Your task to perform on an android device: turn on bluetooth scan Image 0: 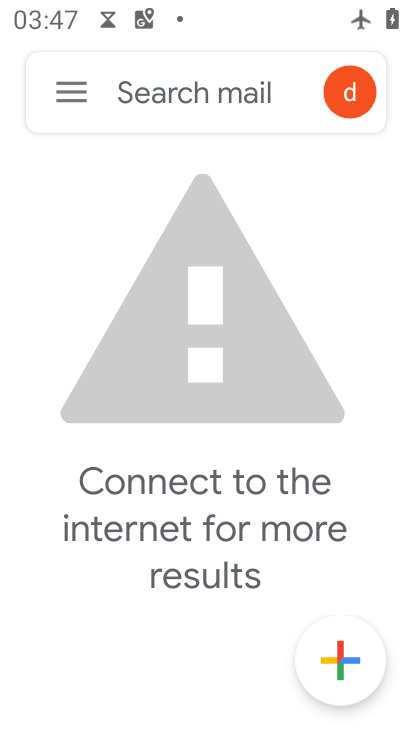
Step 0: press home button
Your task to perform on an android device: turn on bluetooth scan Image 1: 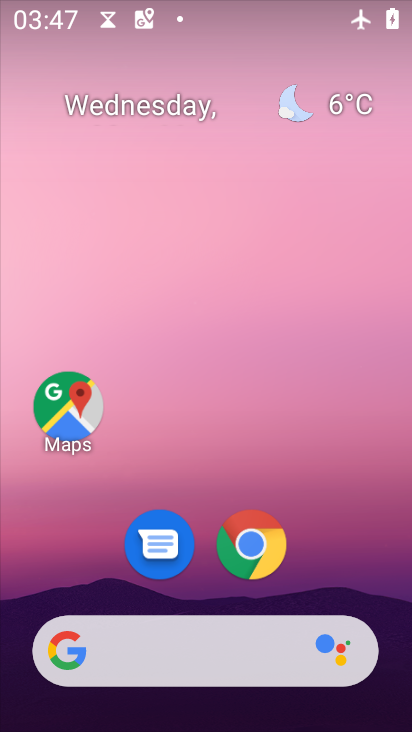
Step 1: drag from (322, 533) to (307, 75)
Your task to perform on an android device: turn on bluetooth scan Image 2: 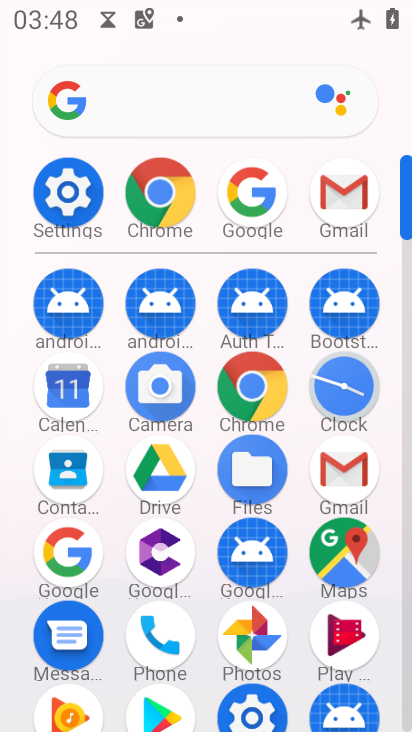
Step 2: click (252, 716)
Your task to perform on an android device: turn on bluetooth scan Image 3: 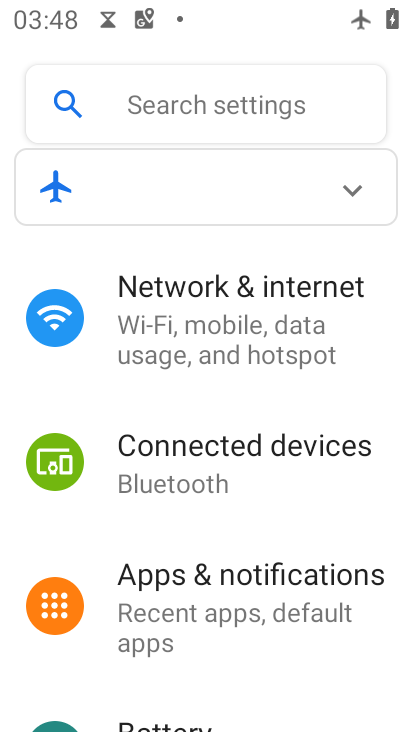
Step 3: drag from (255, 671) to (255, 332)
Your task to perform on an android device: turn on bluetooth scan Image 4: 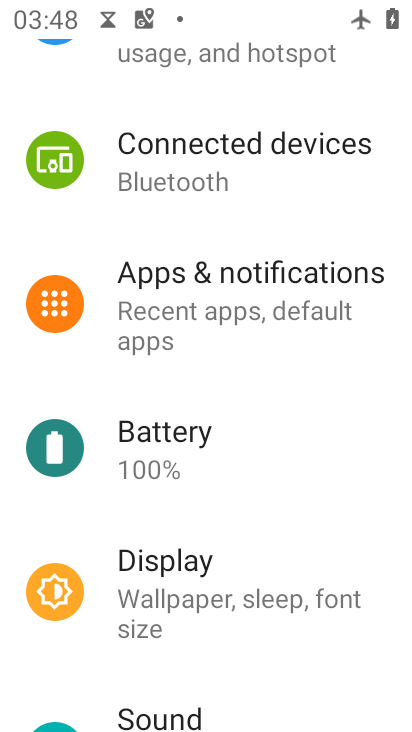
Step 4: drag from (231, 619) to (206, 333)
Your task to perform on an android device: turn on bluetooth scan Image 5: 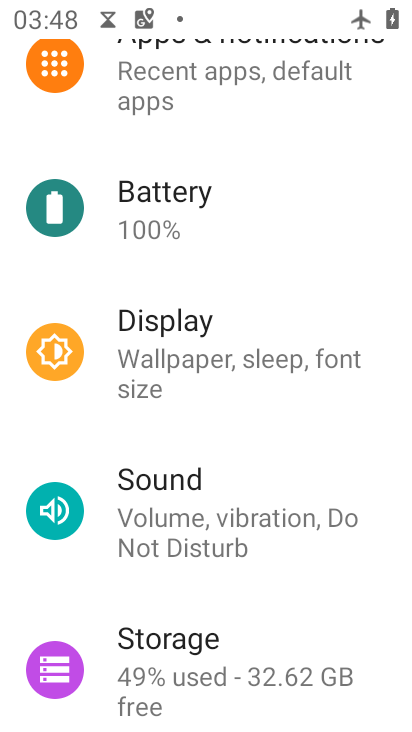
Step 5: drag from (208, 594) to (208, 400)
Your task to perform on an android device: turn on bluetooth scan Image 6: 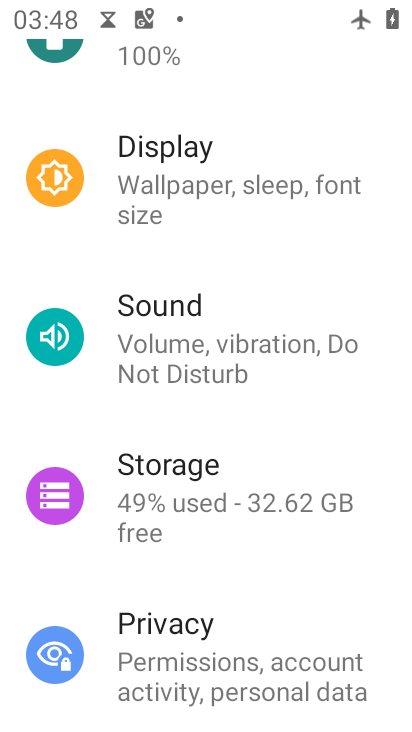
Step 6: drag from (207, 587) to (201, 333)
Your task to perform on an android device: turn on bluetooth scan Image 7: 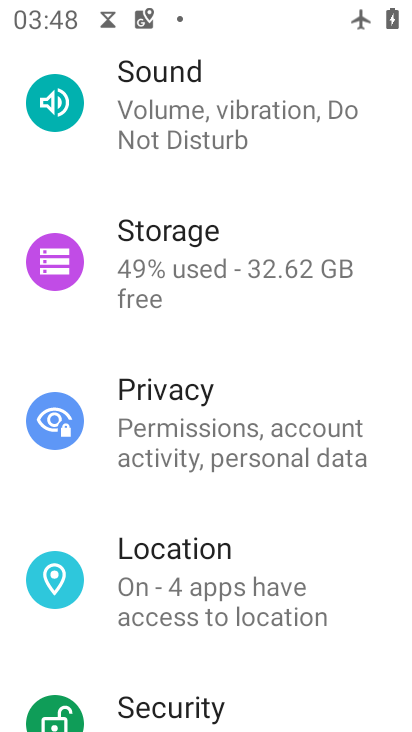
Step 7: click (196, 605)
Your task to perform on an android device: turn on bluetooth scan Image 8: 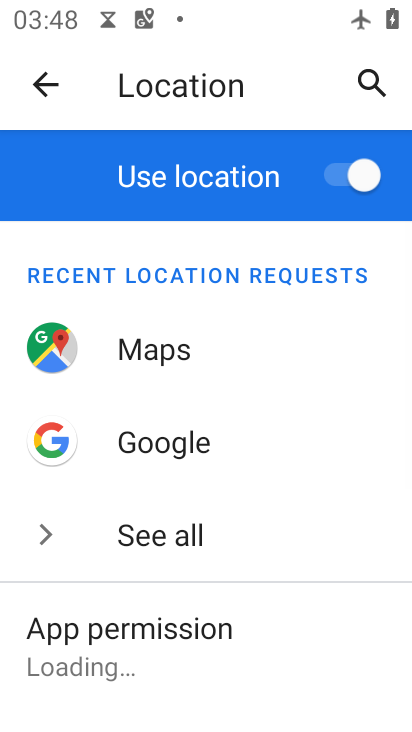
Step 8: drag from (219, 626) to (220, 338)
Your task to perform on an android device: turn on bluetooth scan Image 9: 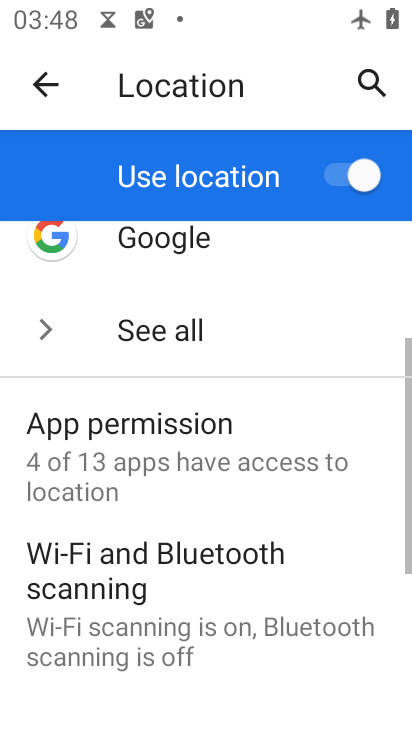
Step 9: click (202, 607)
Your task to perform on an android device: turn on bluetooth scan Image 10: 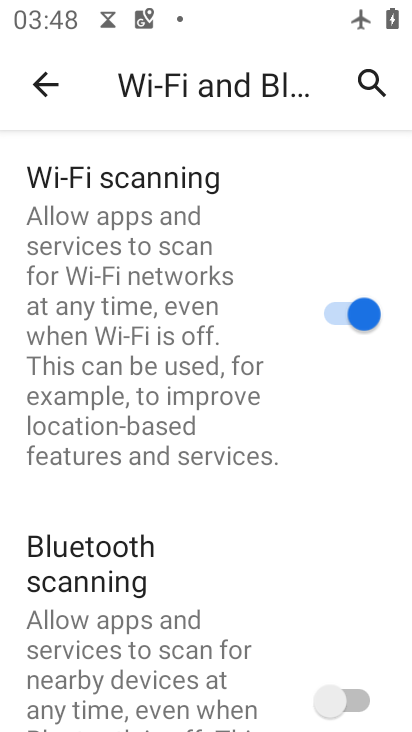
Step 10: click (303, 691)
Your task to perform on an android device: turn on bluetooth scan Image 11: 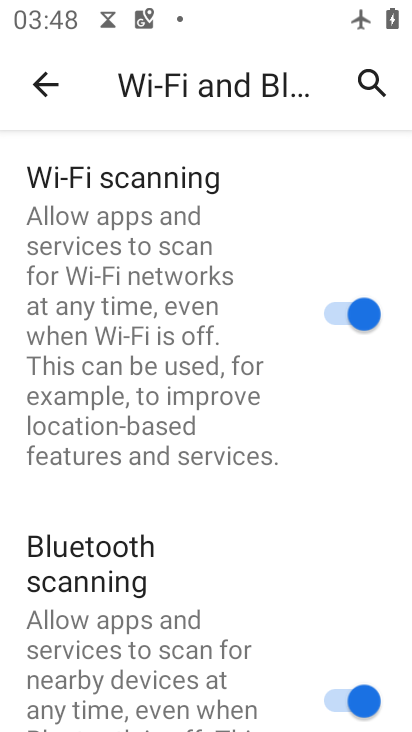
Step 11: task complete